Your task to perform on an android device: Open location settings Image 0: 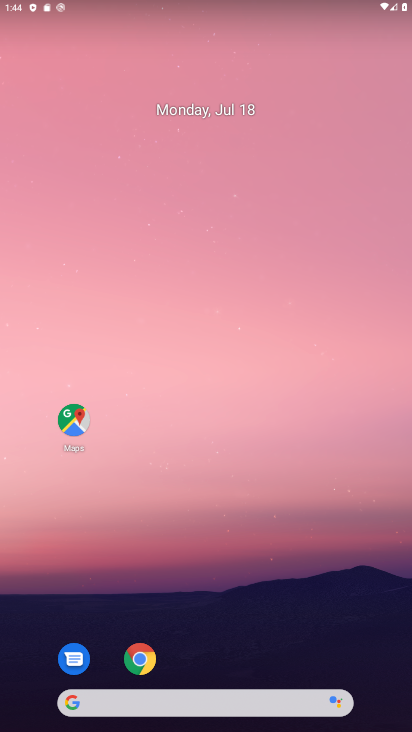
Step 0: drag from (365, 631) to (268, 117)
Your task to perform on an android device: Open location settings Image 1: 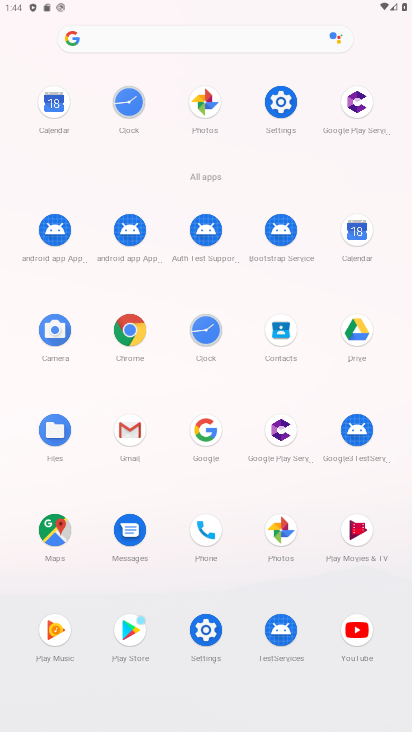
Step 1: click (276, 116)
Your task to perform on an android device: Open location settings Image 2: 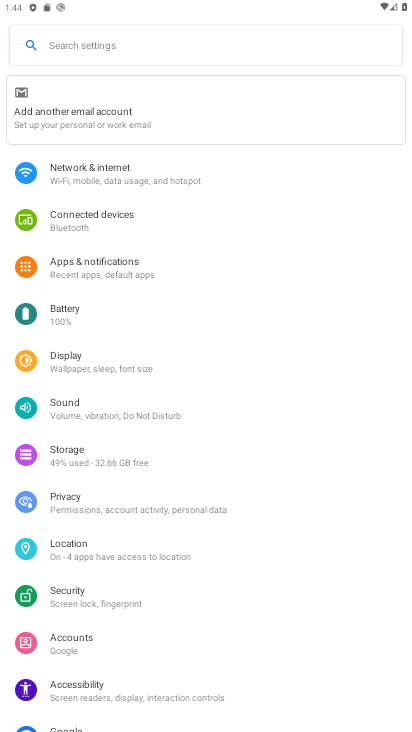
Step 2: click (156, 562)
Your task to perform on an android device: Open location settings Image 3: 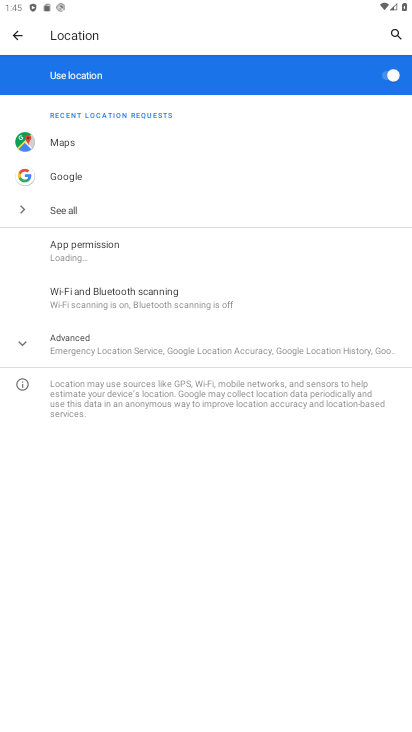
Step 3: task complete